Your task to perform on an android device: turn on location history Image 0: 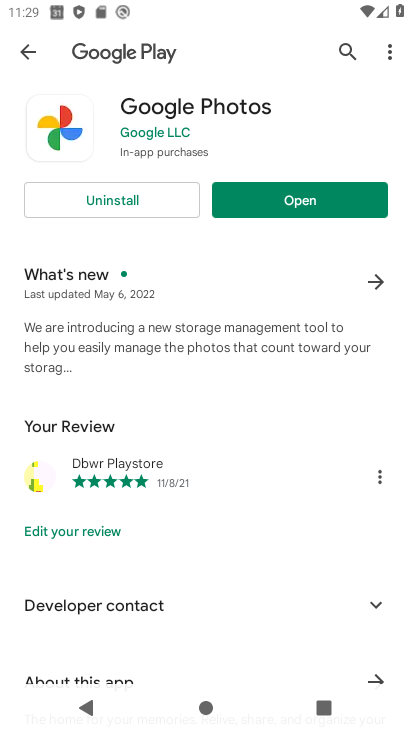
Step 0: press home button
Your task to perform on an android device: turn on location history Image 1: 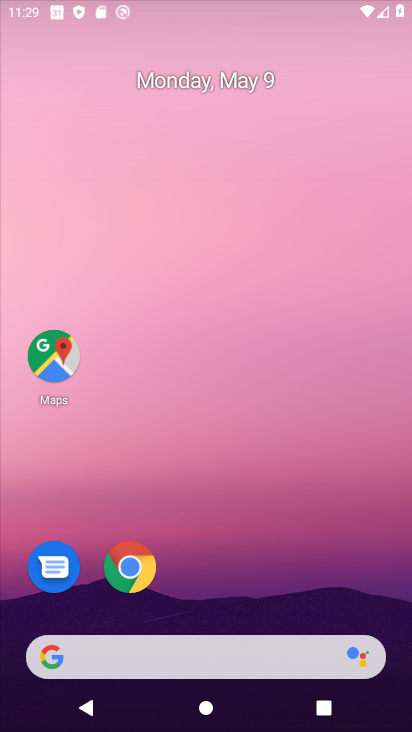
Step 1: drag from (381, 609) to (251, 29)
Your task to perform on an android device: turn on location history Image 2: 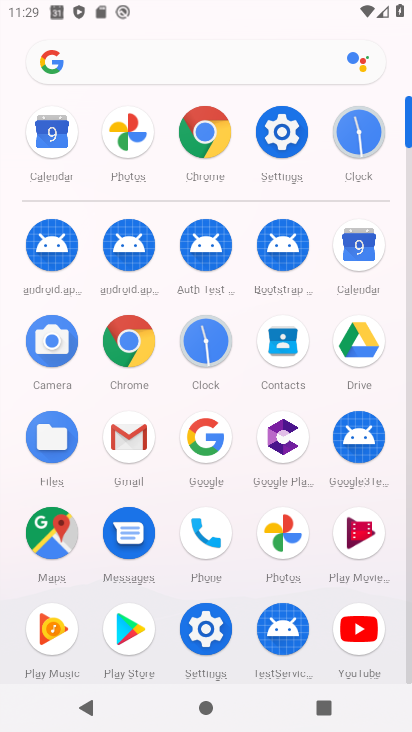
Step 2: click (214, 651)
Your task to perform on an android device: turn on location history Image 3: 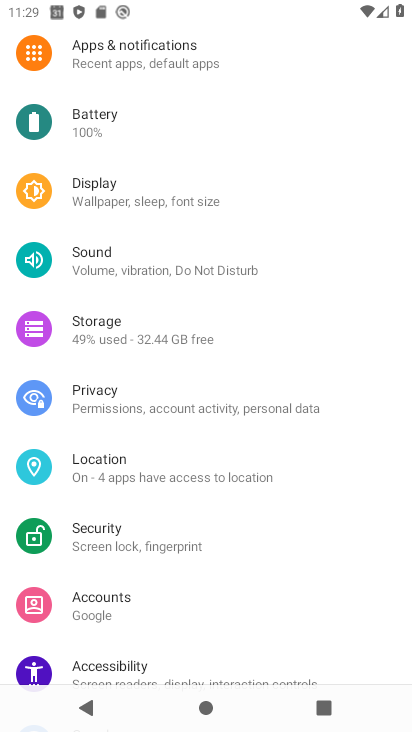
Step 3: drag from (136, 651) to (179, 232)
Your task to perform on an android device: turn on location history Image 4: 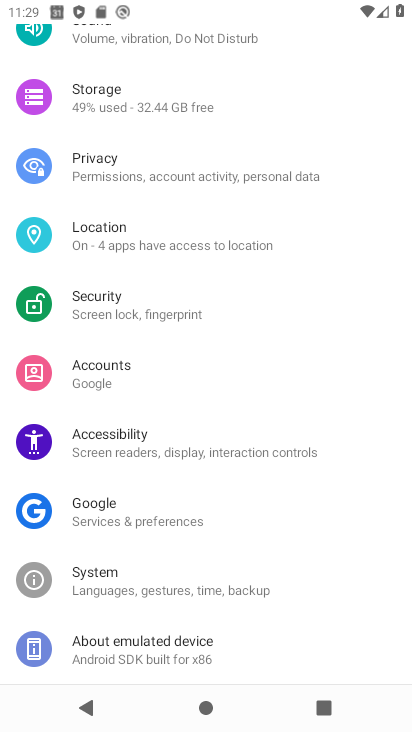
Step 4: click (157, 252)
Your task to perform on an android device: turn on location history Image 5: 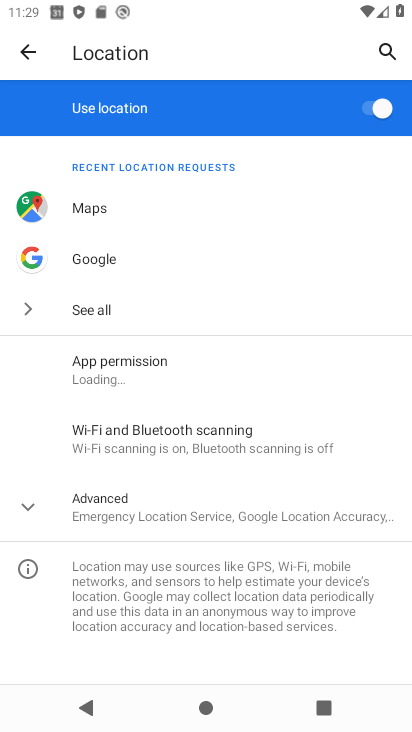
Step 5: click (189, 514)
Your task to perform on an android device: turn on location history Image 6: 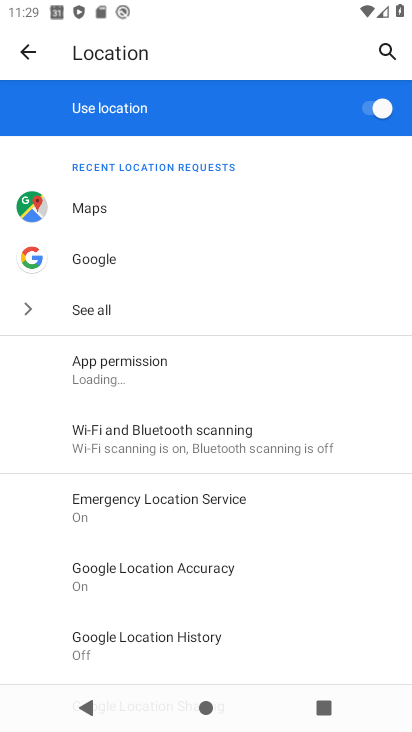
Step 6: click (166, 625)
Your task to perform on an android device: turn on location history Image 7: 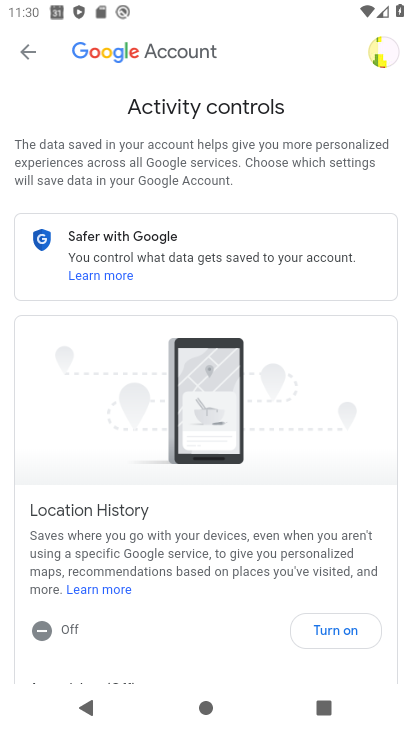
Step 7: task complete